Your task to perform on an android device: add a label to a message in the gmail app Image 0: 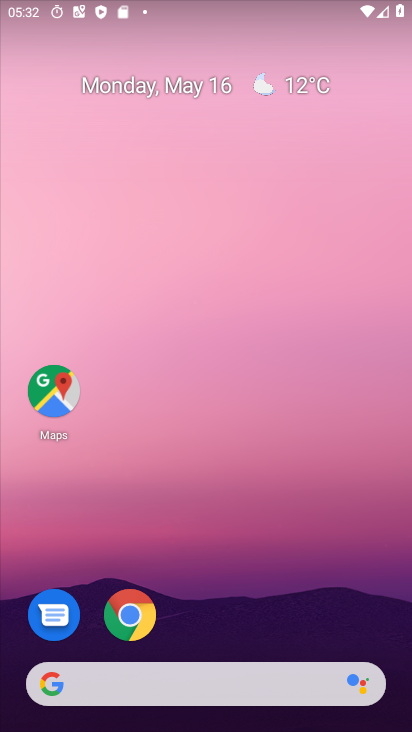
Step 0: click (210, 70)
Your task to perform on an android device: add a label to a message in the gmail app Image 1: 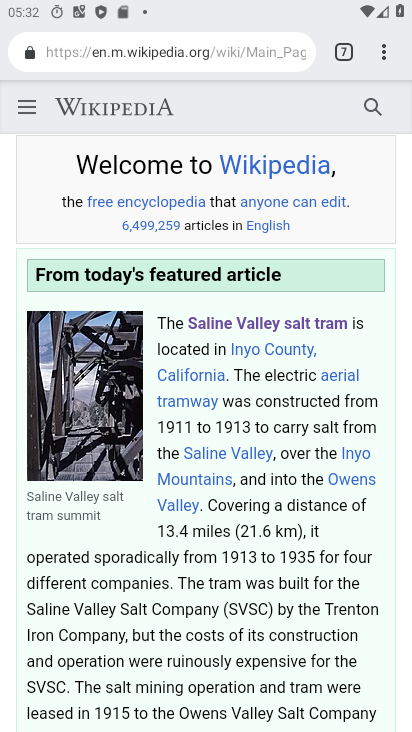
Step 1: drag from (251, 546) to (218, 53)
Your task to perform on an android device: add a label to a message in the gmail app Image 2: 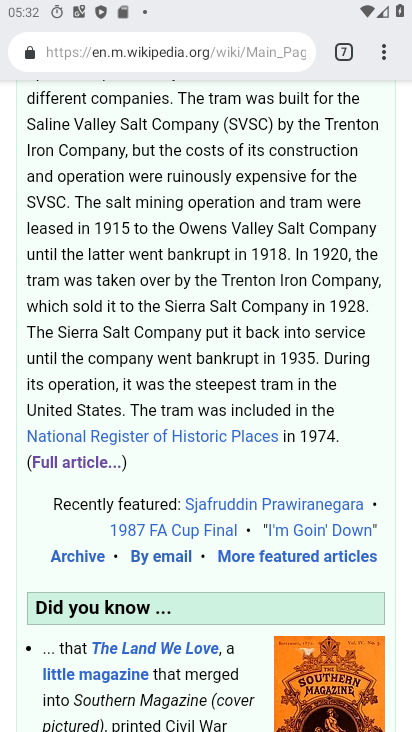
Step 2: click (381, 54)
Your task to perform on an android device: add a label to a message in the gmail app Image 3: 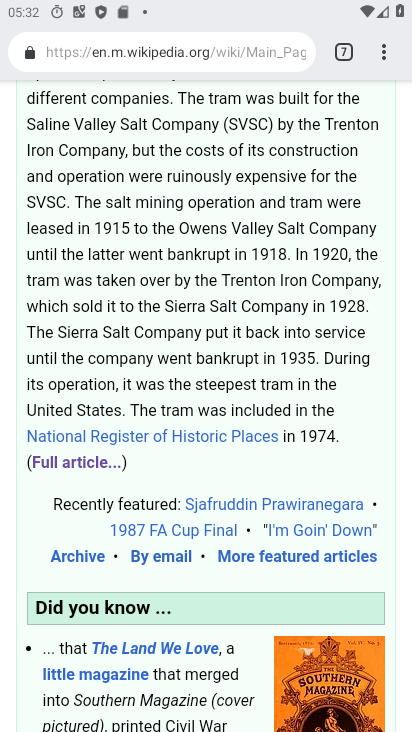
Step 3: click (376, 55)
Your task to perform on an android device: add a label to a message in the gmail app Image 4: 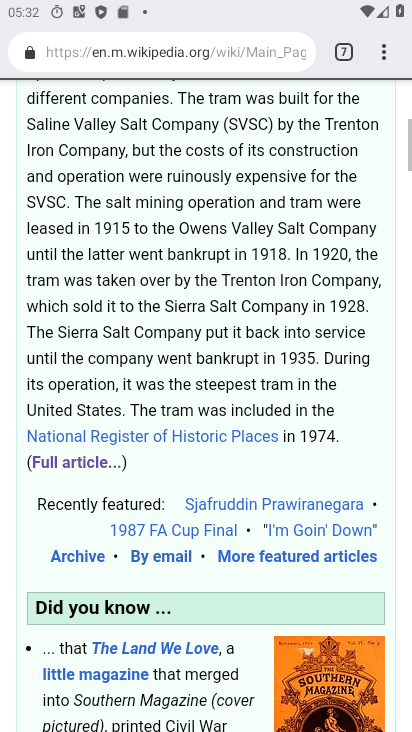
Step 4: click (377, 53)
Your task to perform on an android device: add a label to a message in the gmail app Image 5: 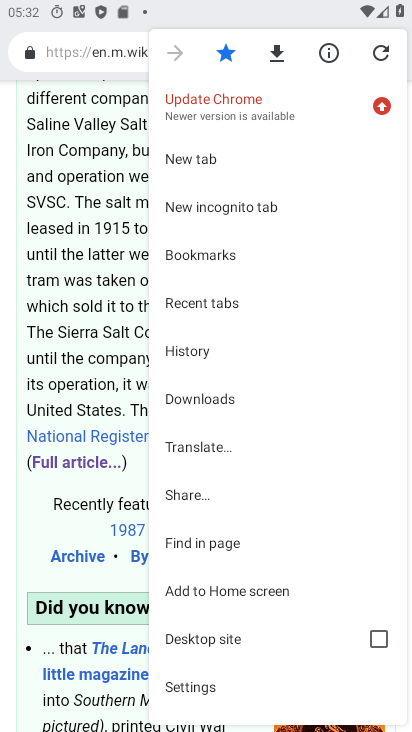
Step 5: click (174, 504)
Your task to perform on an android device: add a label to a message in the gmail app Image 6: 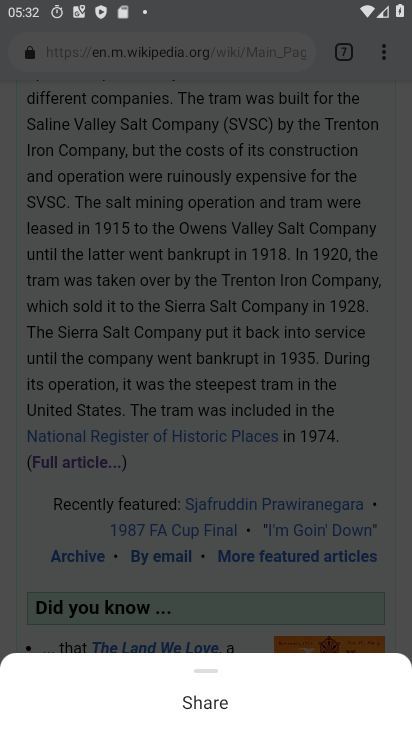
Step 6: task complete